Your task to perform on an android device: Open calendar and show me the second week of next month Image 0: 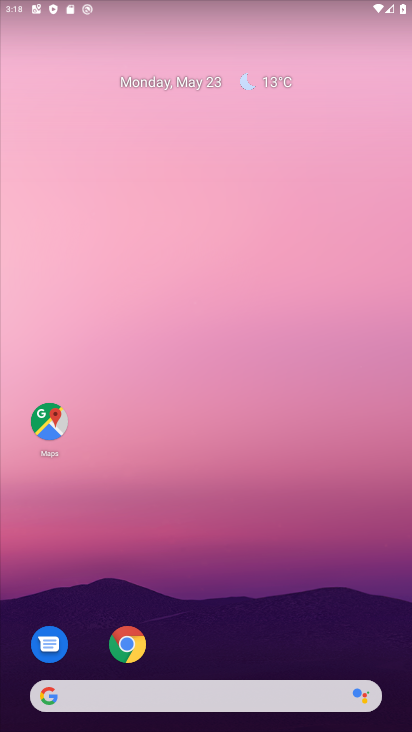
Step 0: drag from (291, 581) to (246, 139)
Your task to perform on an android device: Open calendar and show me the second week of next month Image 1: 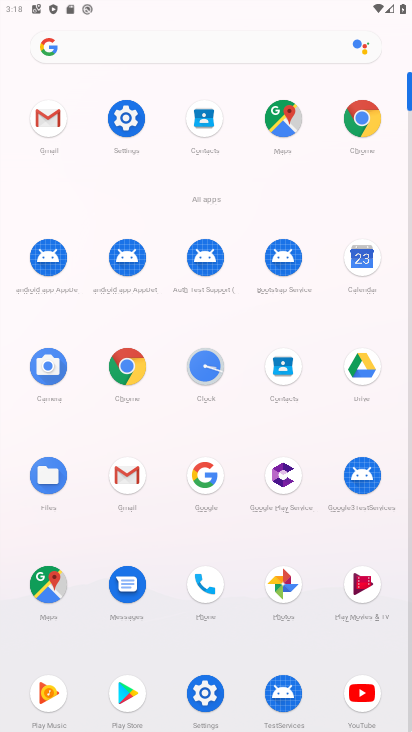
Step 1: drag from (303, 543) to (324, 437)
Your task to perform on an android device: Open calendar and show me the second week of next month Image 2: 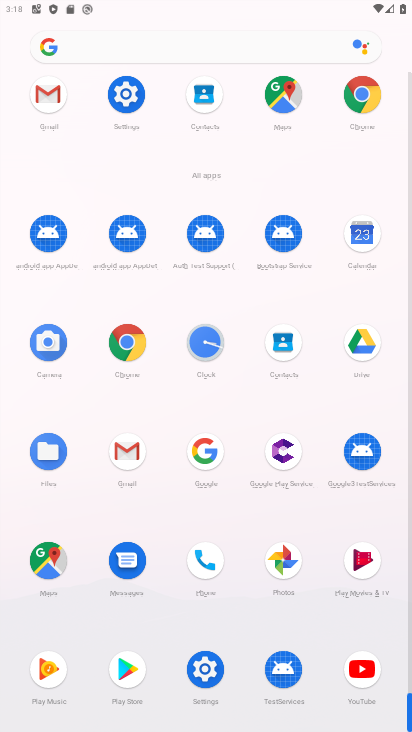
Step 2: click (363, 233)
Your task to perform on an android device: Open calendar and show me the second week of next month Image 3: 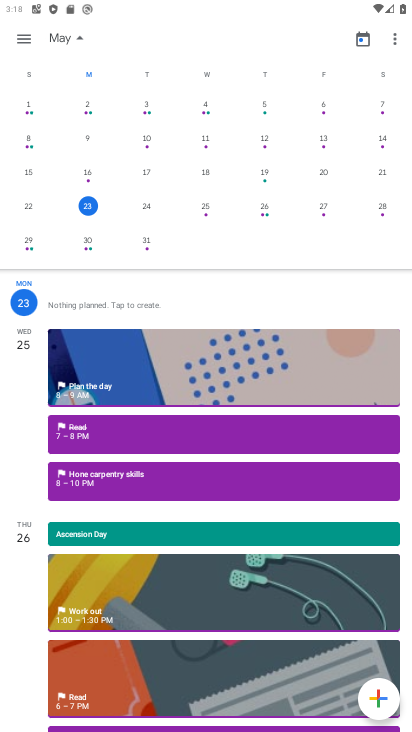
Step 3: drag from (391, 141) to (135, 143)
Your task to perform on an android device: Open calendar and show me the second week of next month Image 4: 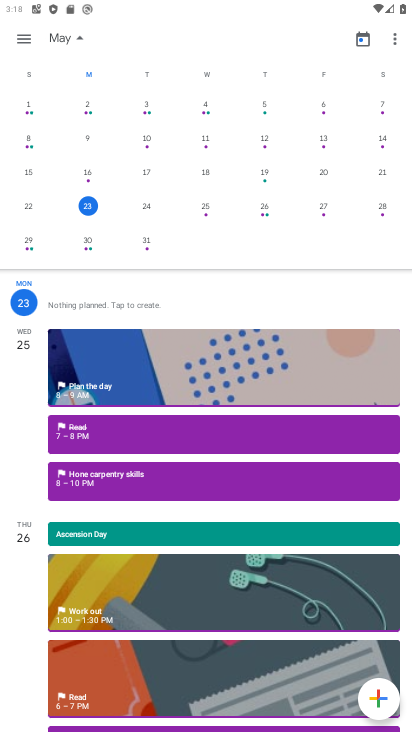
Step 4: drag from (382, 156) to (61, 156)
Your task to perform on an android device: Open calendar and show me the second week of next month Image 5: 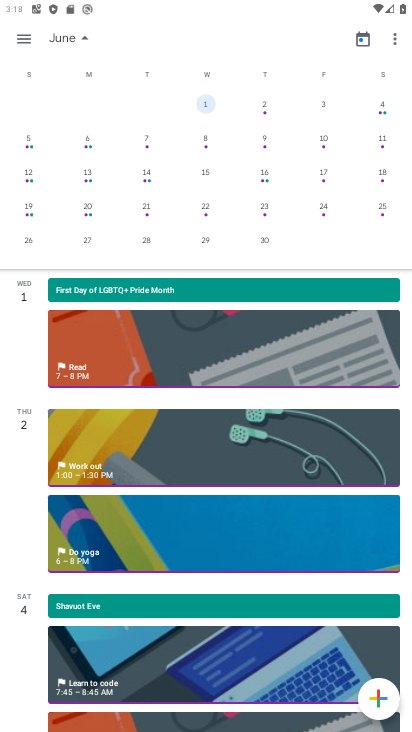
Step 5: click (29, 177)
Your task to perform on an android device: Open calendar and show me the second week of next month Image 6: 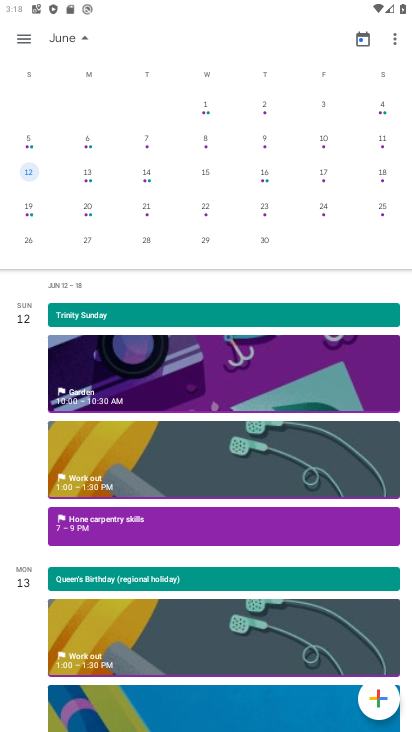
Step 6: click (27, 38)
Your task to perform on an android device: Open calendar and show me the second week of next month Image 7: 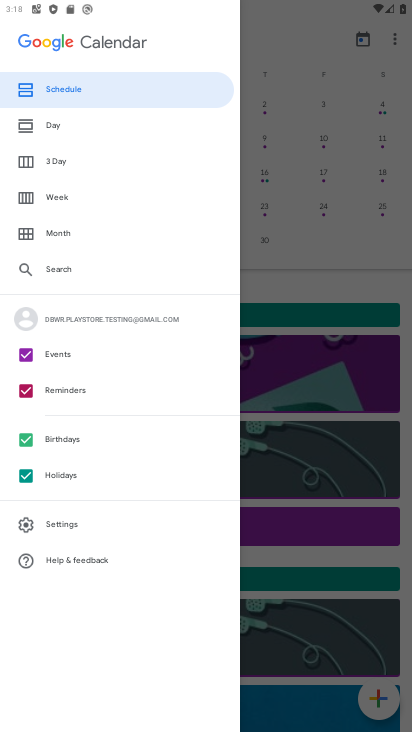
Step 7: click (72, 193)
Your task to perform on an android device: Open calendar and show me the second week of next month Image 8: 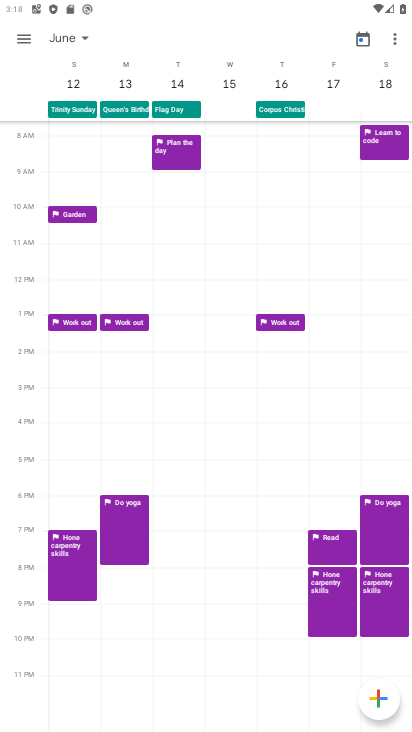
Step 8: task complete